Your task to perform on an android device: When is my next meeting? Image 0: 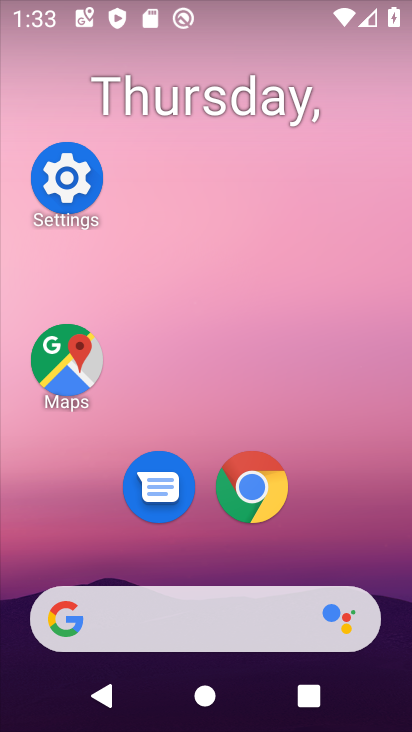
Step 0: drag from (338, 507) to (189, 113)
Your task to perform on an android device: When is my next meeting? Image 1: 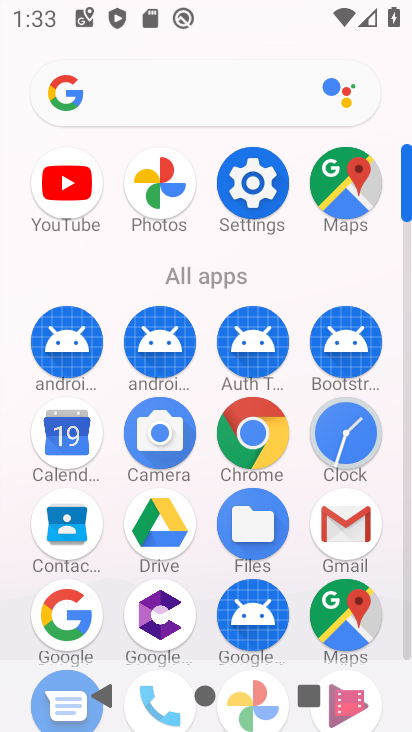
Step 1: click (85, 449)
Your task to perform on an android device: When is my next meeting? Image 2: 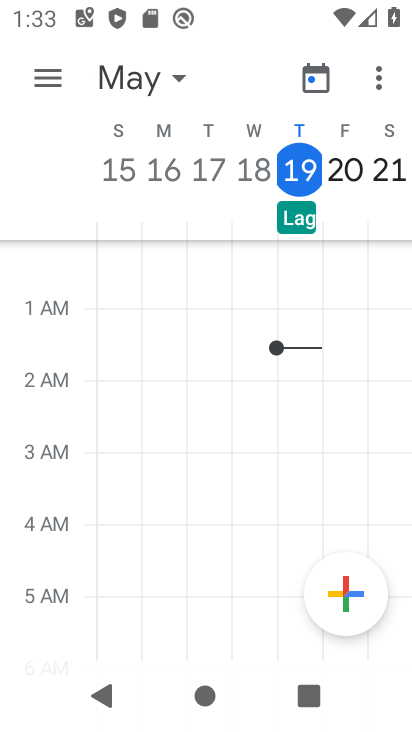
Step 2: click (55, 64)
Your task to perform on an android device: When is my next meeting? Image 3: 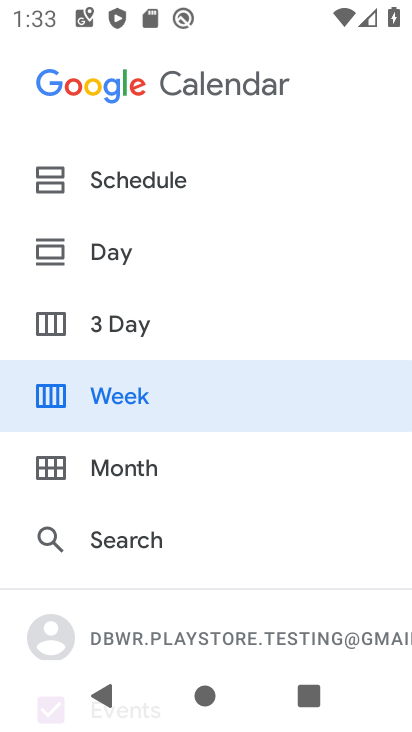
Step 3: click (120, 256)
Your task to perform on an android device: When is my next meeting? Image 4: 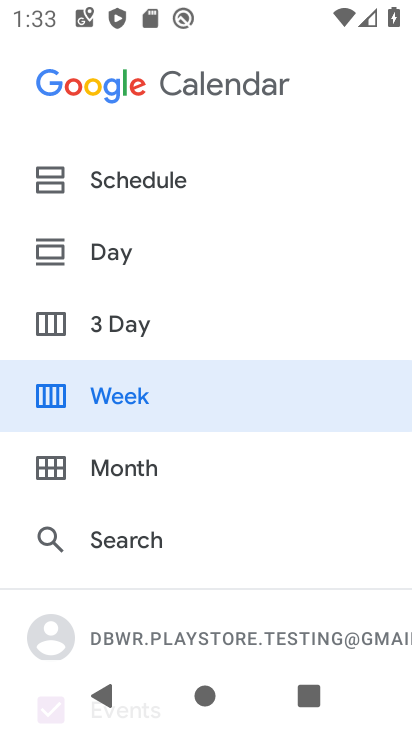
Step 4: click (174, 262)
Your task to perform on an android device: When is my next meeting? Image 5: 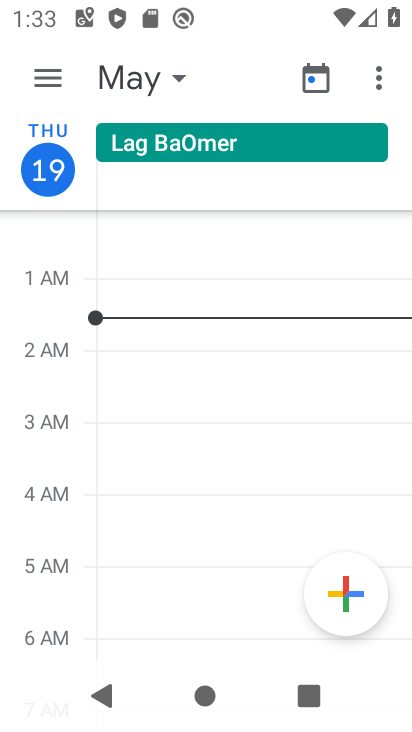
Step 5: drag from (362, 182) to (7, 51)
Your task to perform on an android device: When is my next meeting? Image 6: 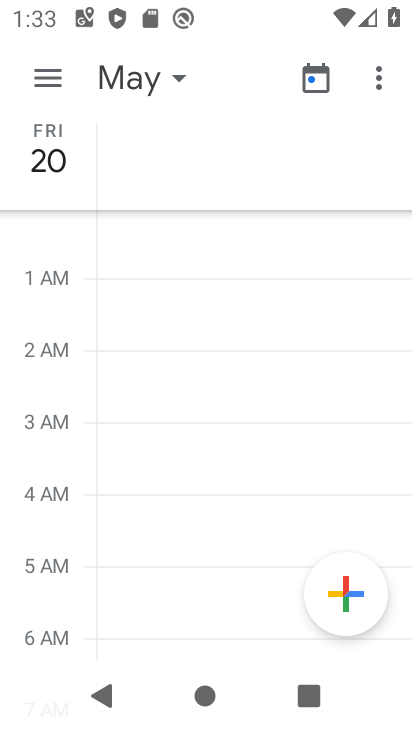
Step 6: click (182, 140)
Your task to perform on an android device: When is my next meeting? Image 7: 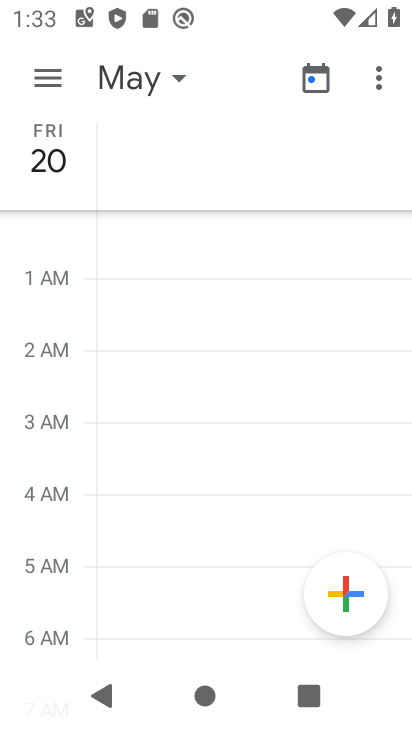
Step 7: click (36, 155)
Your task to perform on an android device: When is my next meeting? Image 8: 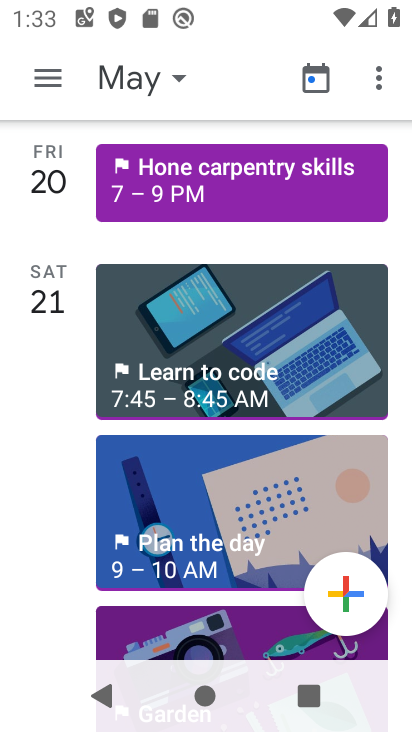
Step 8: task complete